Your task to perform on an android device: open the mobile data screen to see how much data has been used Image 0: 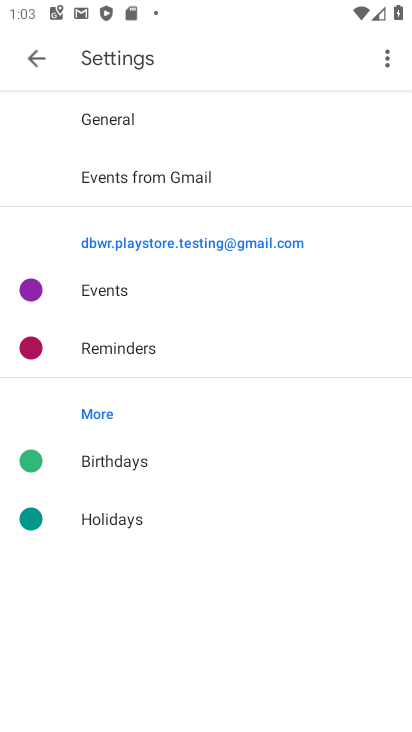
Step 0: press home button
Your task to perform on an android device: open the mobile data screen to see how much data has been used Image 1: 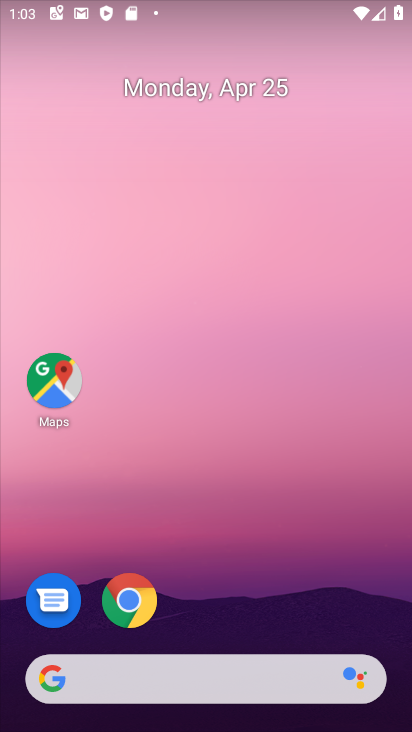
Step 1: drag from (156, 679) to (292, 187)
Your task to perform on an android device: open the mobile data screen to see how much data has been used Image 2: 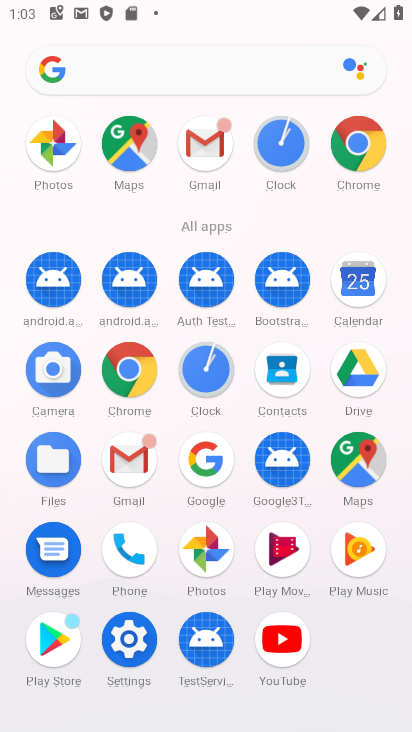
Step 2: click (130, 642)
Your task to perform on an android device: open the mobile data screen to see how much data has been used Image 3: 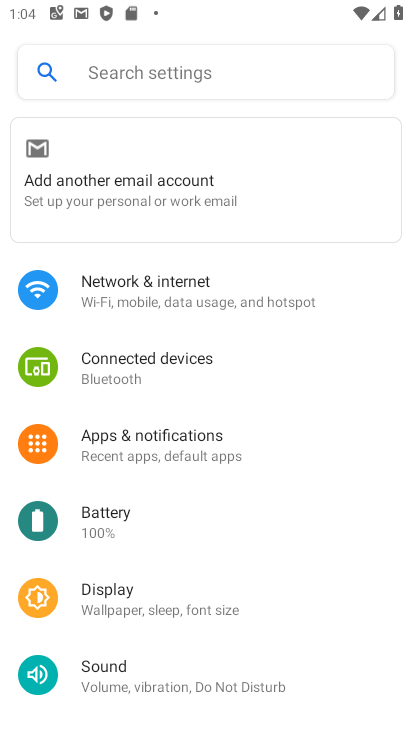
Step 3: click (171, 287)
Your task to perform on an android device: open the mobile data screen to see how much data has been used Image 4: 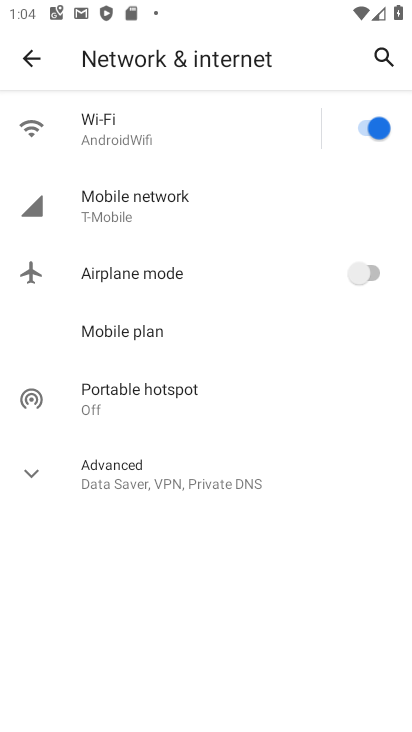
Step 4: click (137, 198)
Your task to perform on an android device: open the mobile data screen to see how much data has been used Image 5: 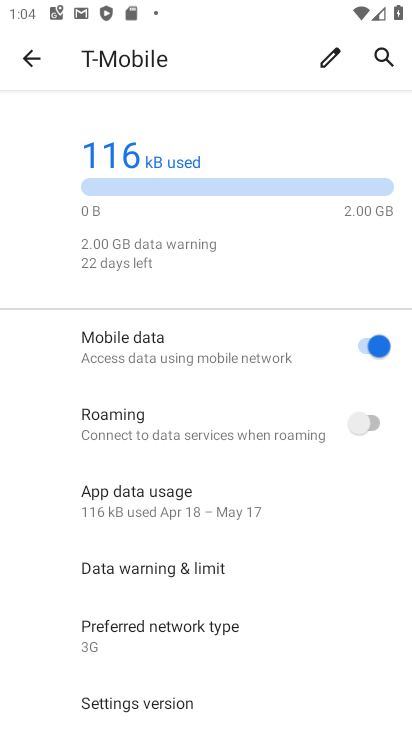
Step 5: task complete